Your task to perform on an android device: Open Yahoo.com Image 0: 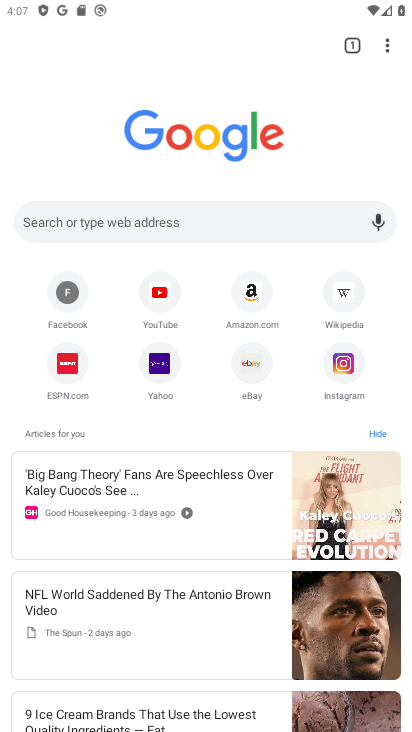
Step 0: press home button
Your task to perform on an android device: Open Yahoo.com Image 1: 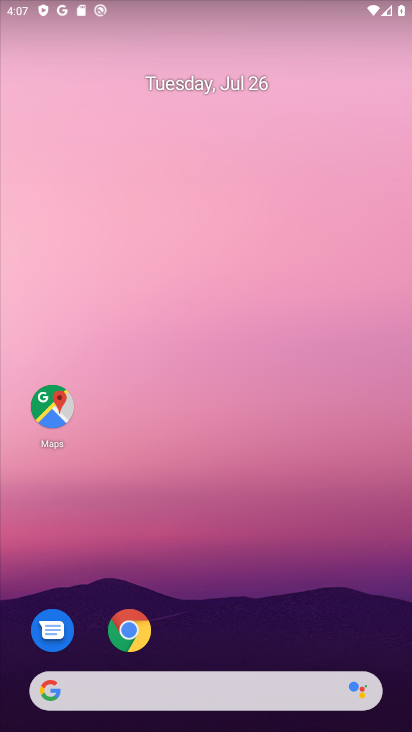
Step 1: drag from (332, 586) to (188, 53)
Your task to perform on an android device: Open Yahoo.com Image 2: 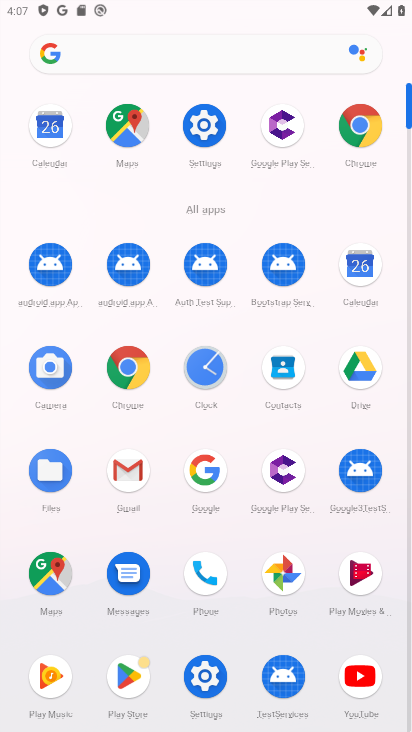
Step 2: click (359, 129)
Your task to perform on an android device: Open Yahoo.com Image 3: 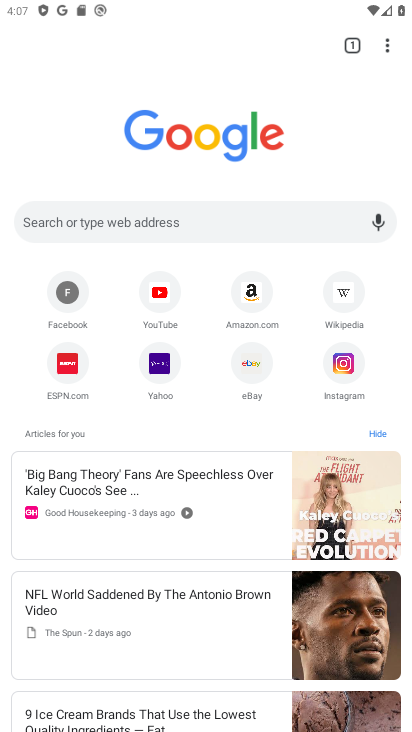
Step 3: click (182, 361)
Your task to perform on an android device: Open Yahoo.com Image 4: 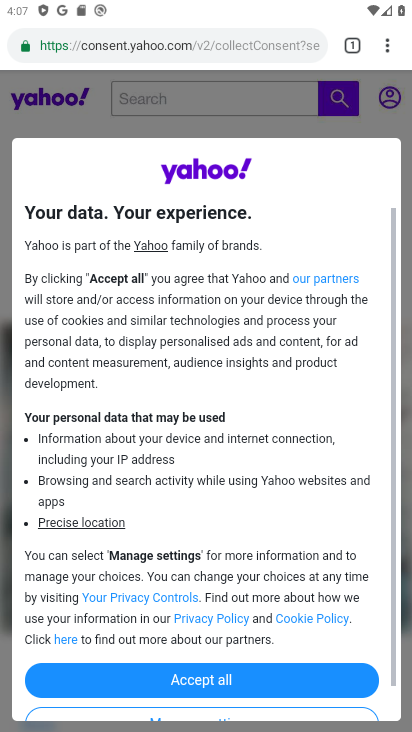
Step 4: task complete